Your task to perform on an android device: clear history in the chrome app Image 0: 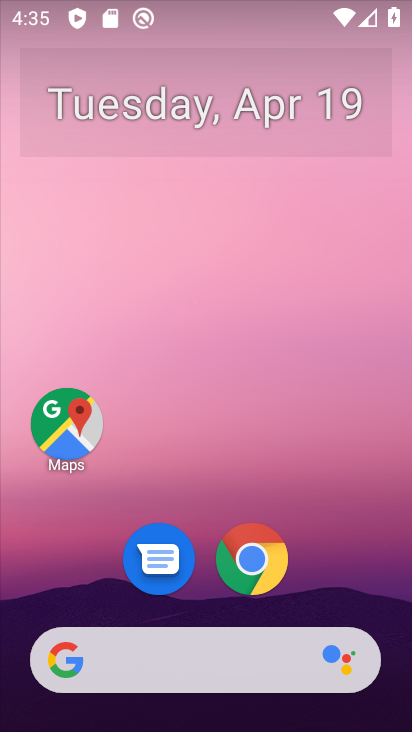
Step 0: drag from (325, 588) to (128, 107)
Your task to perform on an android device: clear history in the chrome app Image 1: 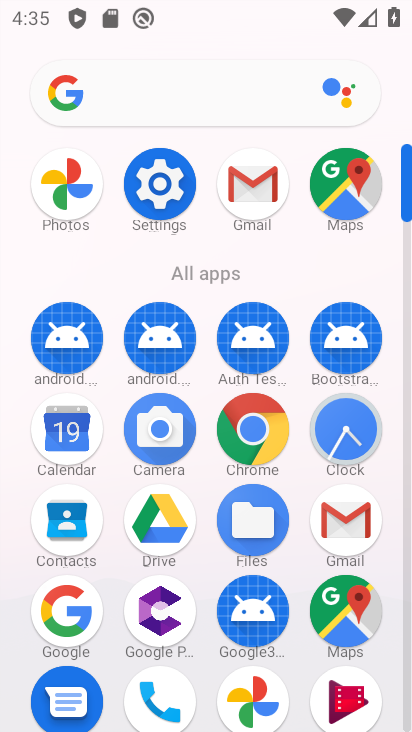
Step 1: click (241, 463)
Your task to perform on an android device: clear history in the chrome app Image 2: 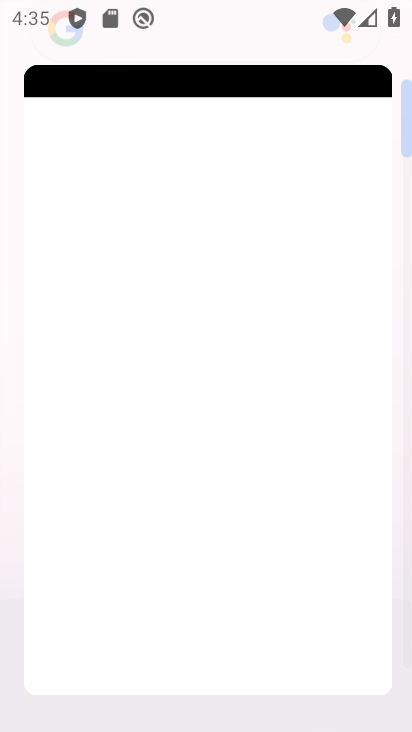
Step 2: click (241, 463)
Your task to perform on an android device: clear history in the chrome app Image 3: 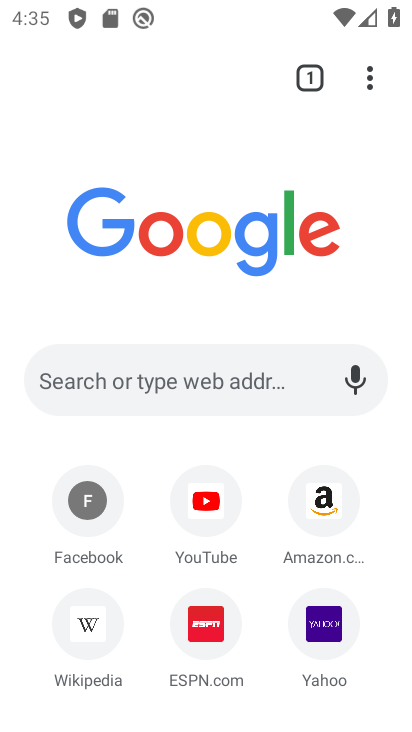
Step 3: click (379, 86)
Your task to perform on an android device: clear history in the chrome app Image 4: 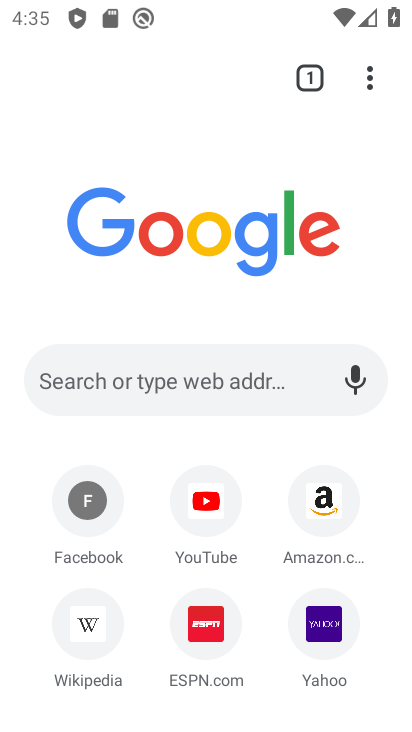
Step 4: click (367, 80)
Your task to perform on an android device: clear history in the chrome app Image 5: 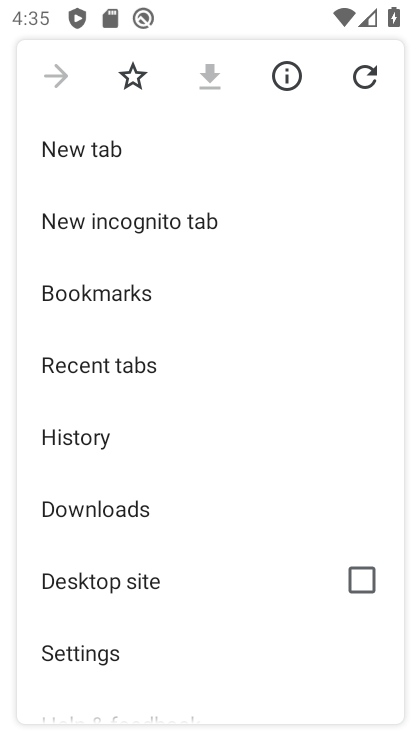
Step 5: drag from (224, 536) to (228, 286)
Your task to perform on an android device: clear history in the chrome app Image 6: 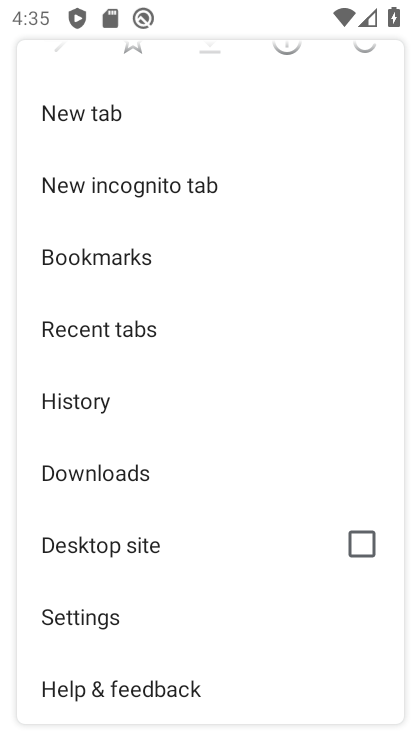
Step 6: click (185, 625)
Your task to perform on an android device: clear history in the chrome app Image 7: 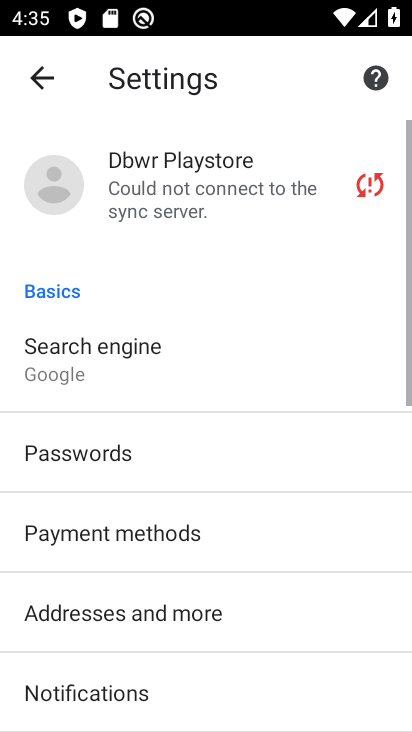
Step 7: drag from (185, 625) to (174, 328)
Your task to perform on an android device: clear history in the chrome app Image 8: 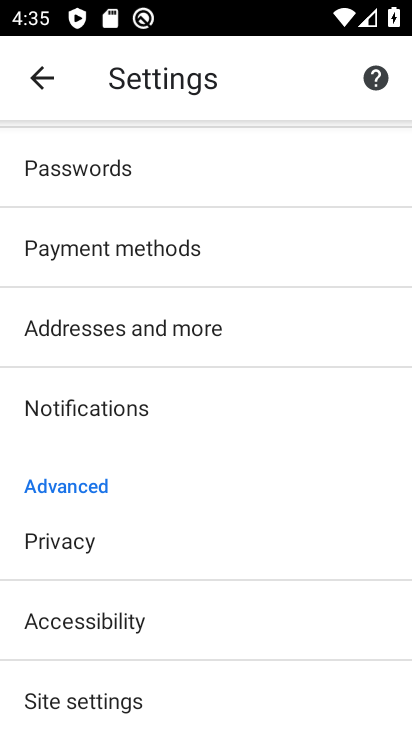
Step 8: drag from (142, 530) to (113, 245)
Your task to perform on an android device: clear history in the chrome app Image 9: 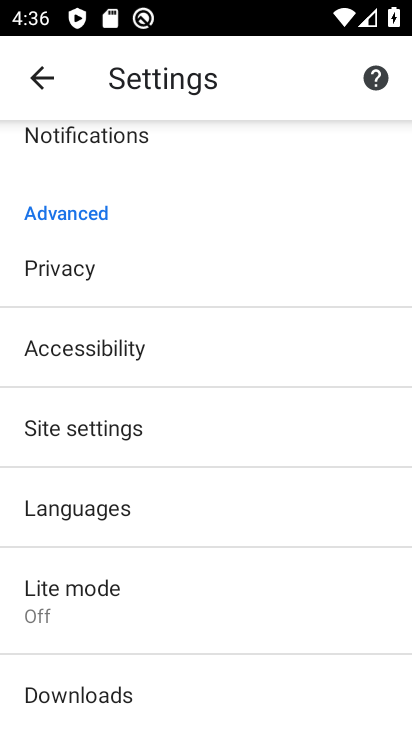
Step 9: click (31, 78)
Your task to perform on an android device: clear history in the chrome app Image 10: 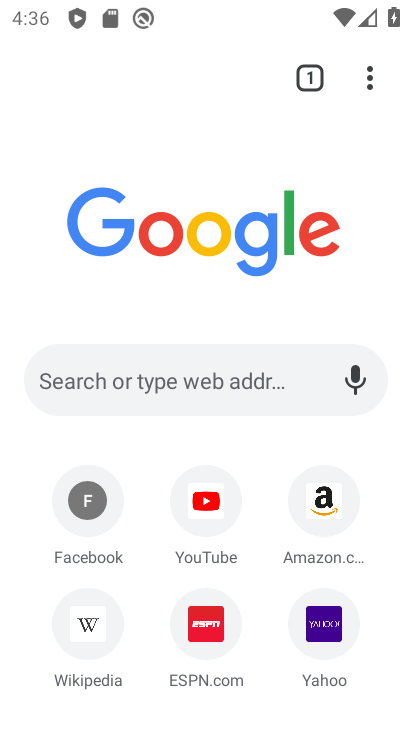
Step 10: drag from (129, 311) to (148, 102)
Your task to perform on an android device: clear history in the chrome app Image 11: 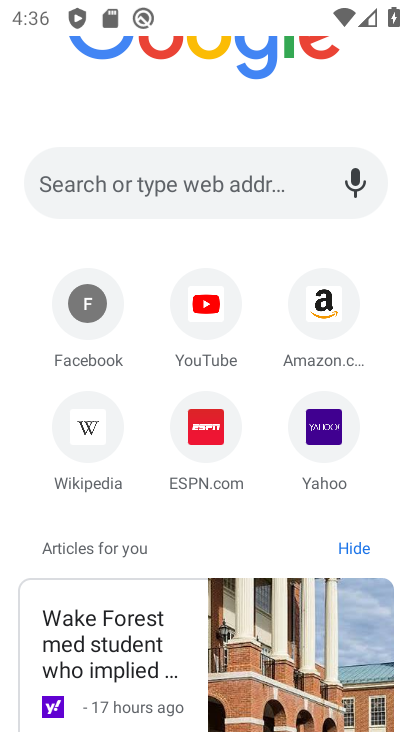
Step 11: drag from (254, 57) to (214, 383)
Your task to perform on an android device: clear history in the chrome app Image 12: 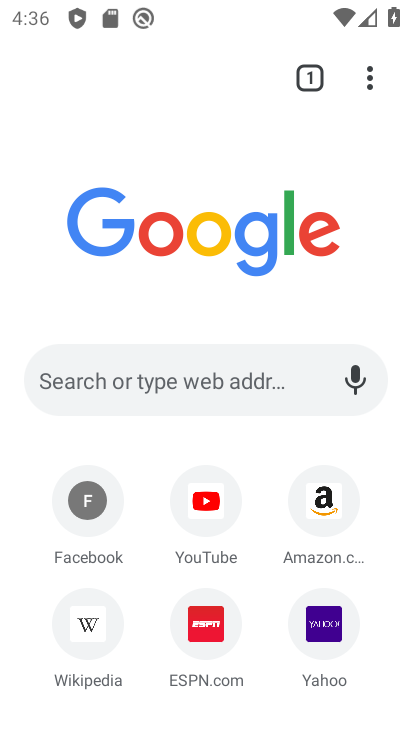
Step 12: click (364, 84)
Your task to perform on an android device: clear history in the chrome app Image 13: 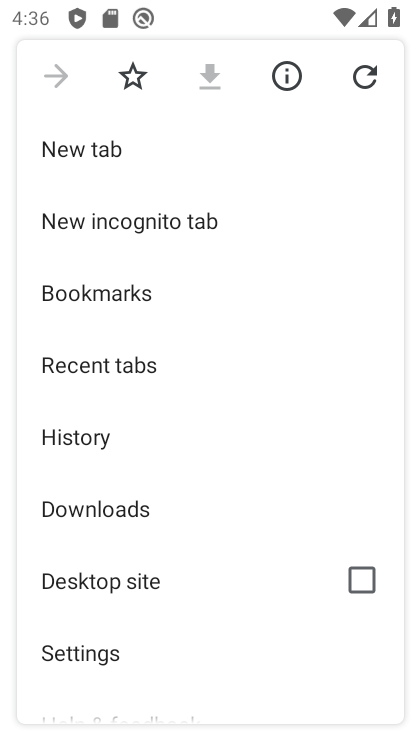
Step 13: click (136, 440)
Your task to perform on an android device: clear history in the chrome app Image 14: 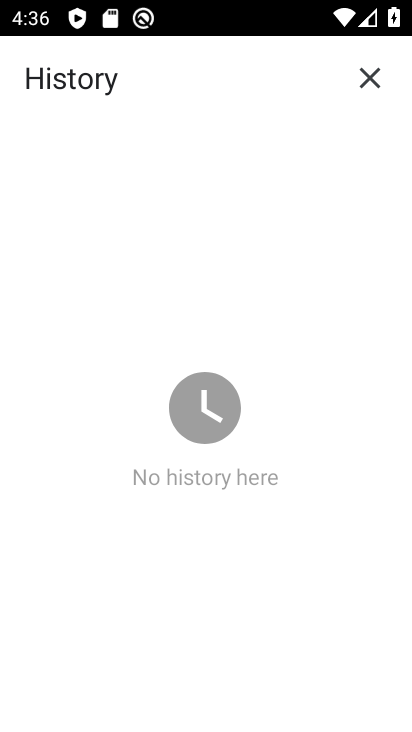
Step 14: task complete